Your task to perform on an android device: What's the latest video from GameSpot? Image 0: 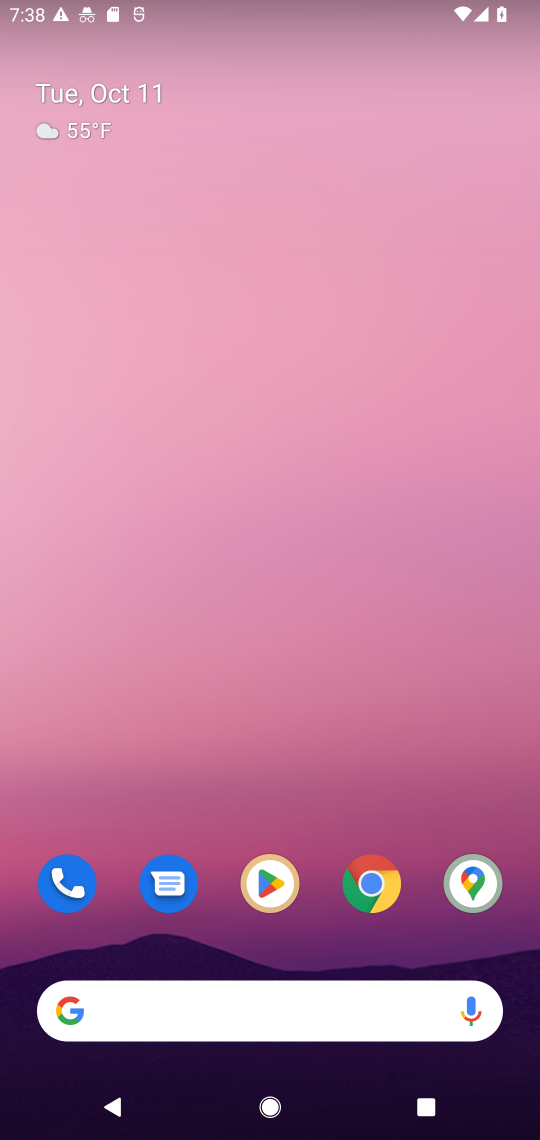
Step 0: drag from (323, 952) to (306, 50)
Your task to perform on an android device: What's the latest video from GameSpot? Image 1: 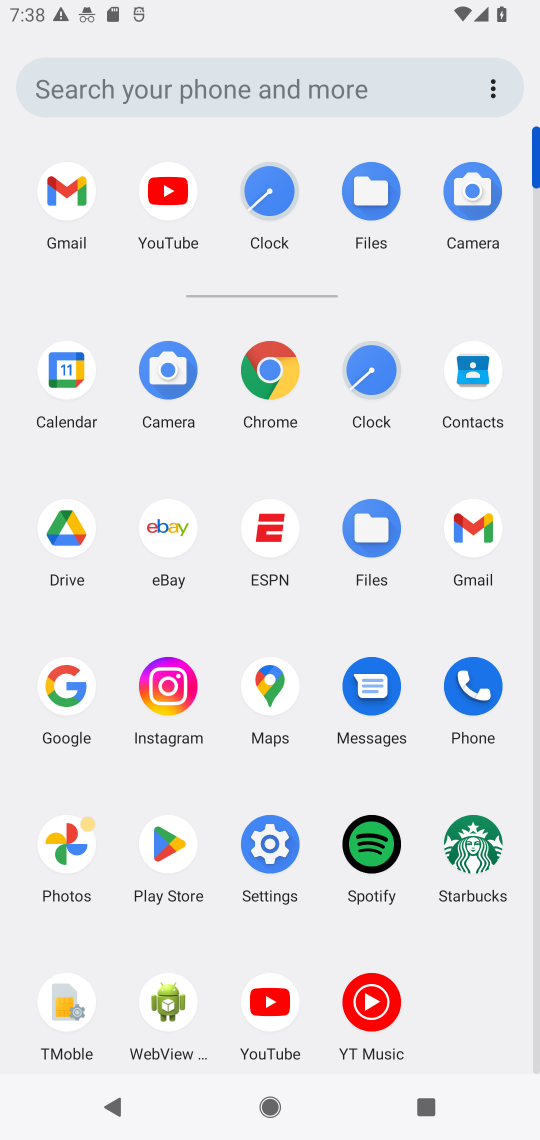
Step 1: click (276, 987)
Your task to perform on an android device: What's the latest video from GameSpot? Image 2: 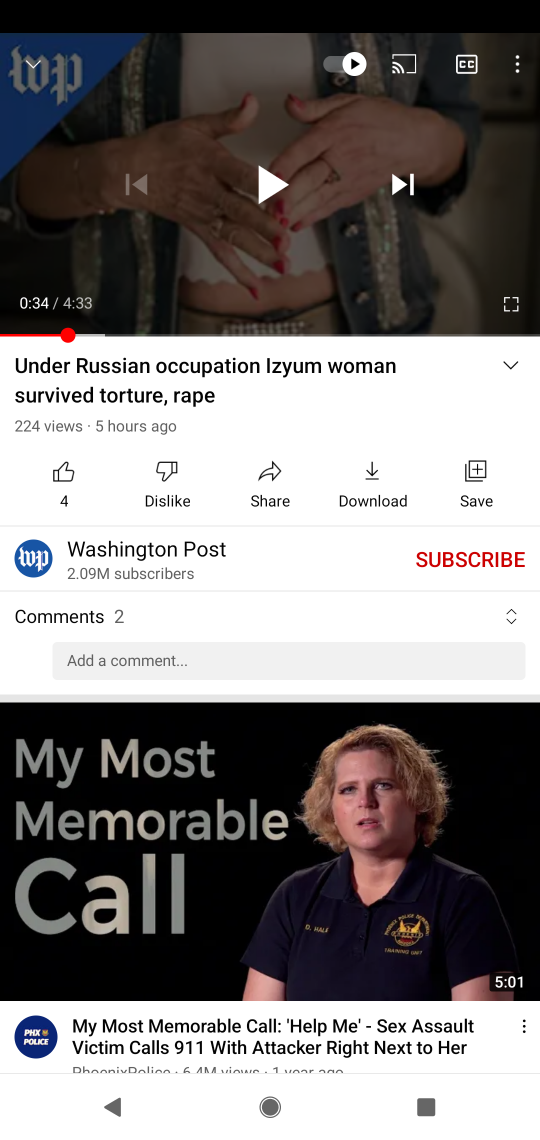
Step 2: drag from (331, 242) to (324, 867)
Your task to perform on an android device: What's the latest video from GameSpot? Image 3: 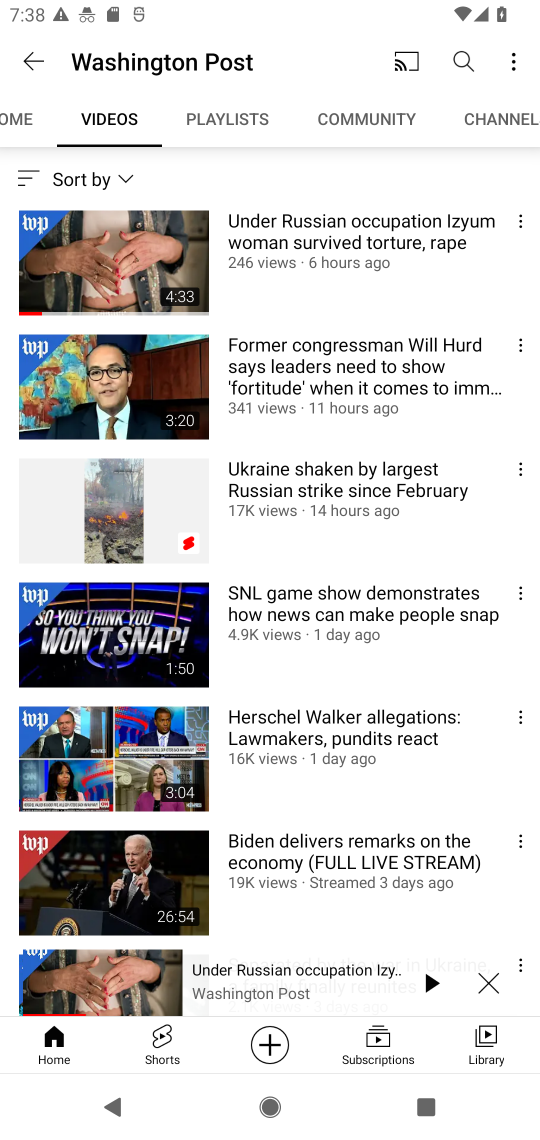
Step 3: press back button
Your task to perform on an android device: What's the latest video from GameSpot? Image 4: 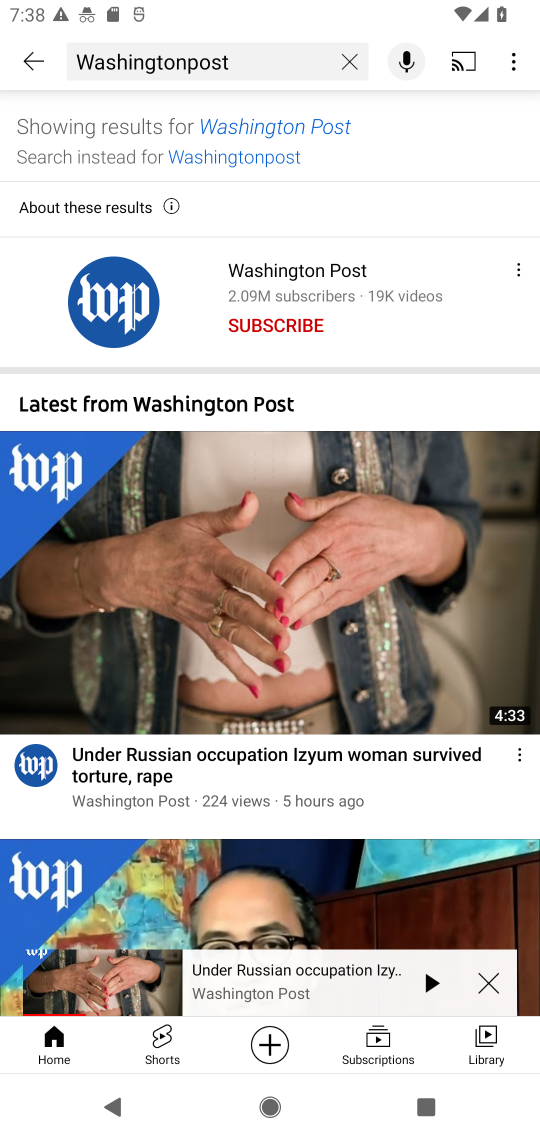
Step 4: click (351, 61)
Your task to perform on an android device: What's the latest video from GameSpot? Image 5: 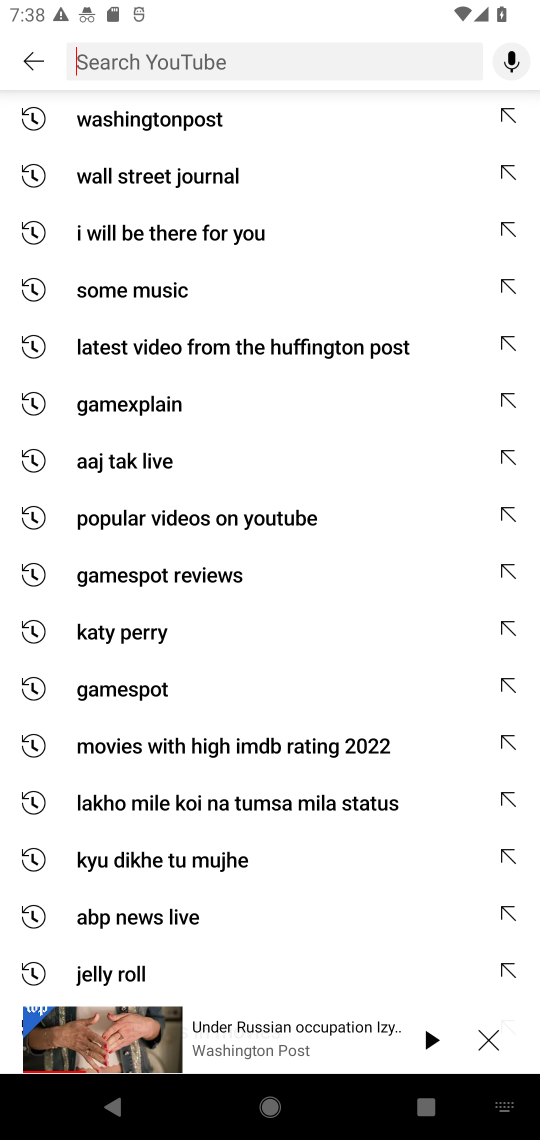
Step 5: type "GameSpot"
Your task to perform on an android device: What's the latest video from GameSpot? Image 6: 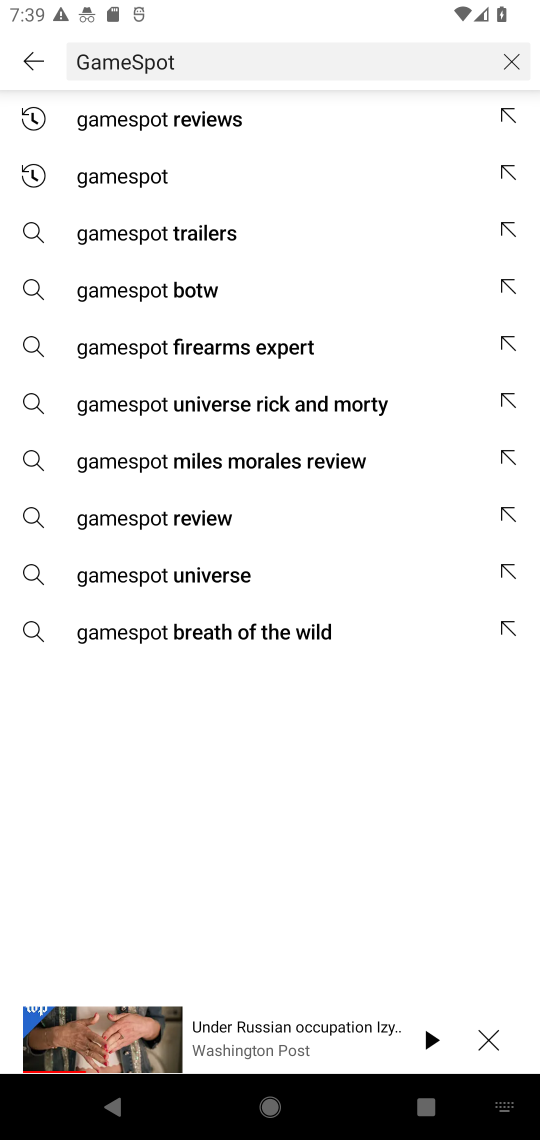
Step 6: press enter
Your task to perform on an android device: What's the latest video from GameSpot? Image 7: 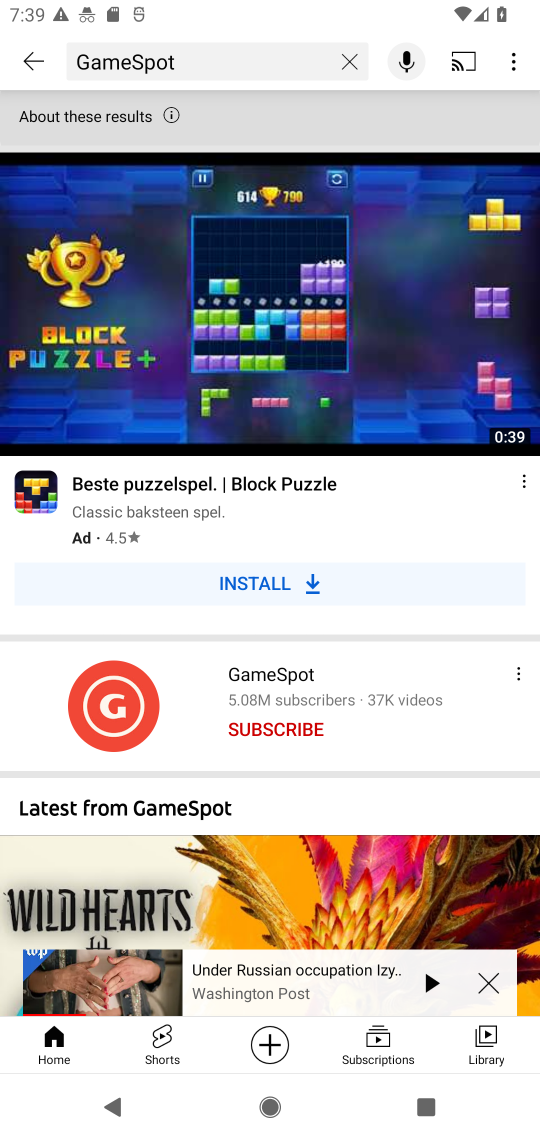
Step 7: click (237, 680)
Your task to perform on an android device: What's the latest video from GameSpot? Image 8: 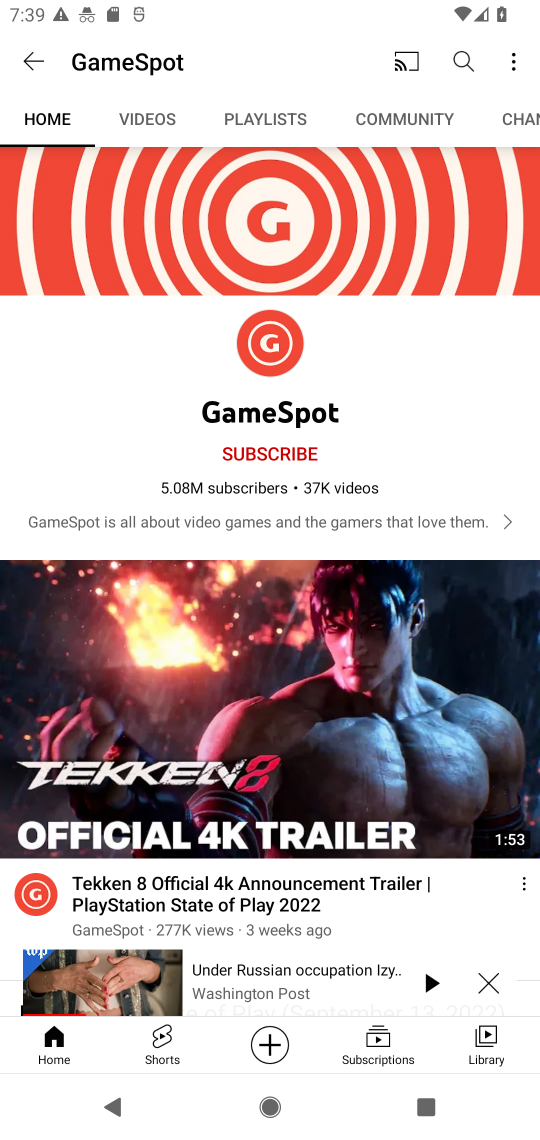
Step 8: click (128, 121)
Your task to perform on an android device: What's the latest video from GameSpot? Image 9: 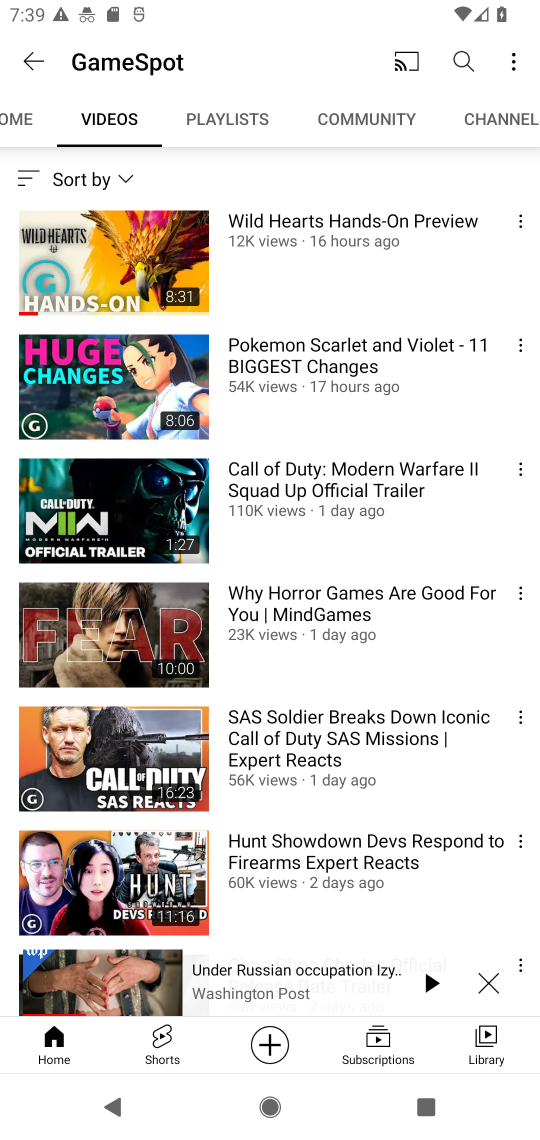
Step 9: click (136, 221)
Your task to perform on an android device: What's the latest video from GameSpot? Image 10: 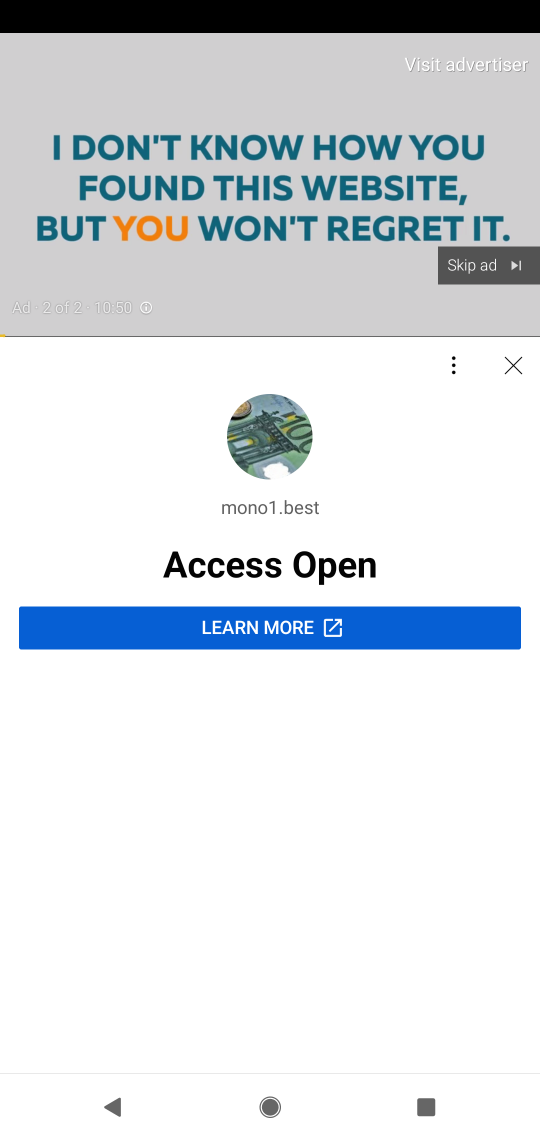
Step 10: click (517, 257)
Your task to perform on an android device: What's the latest video from GameSpot? Image 11: 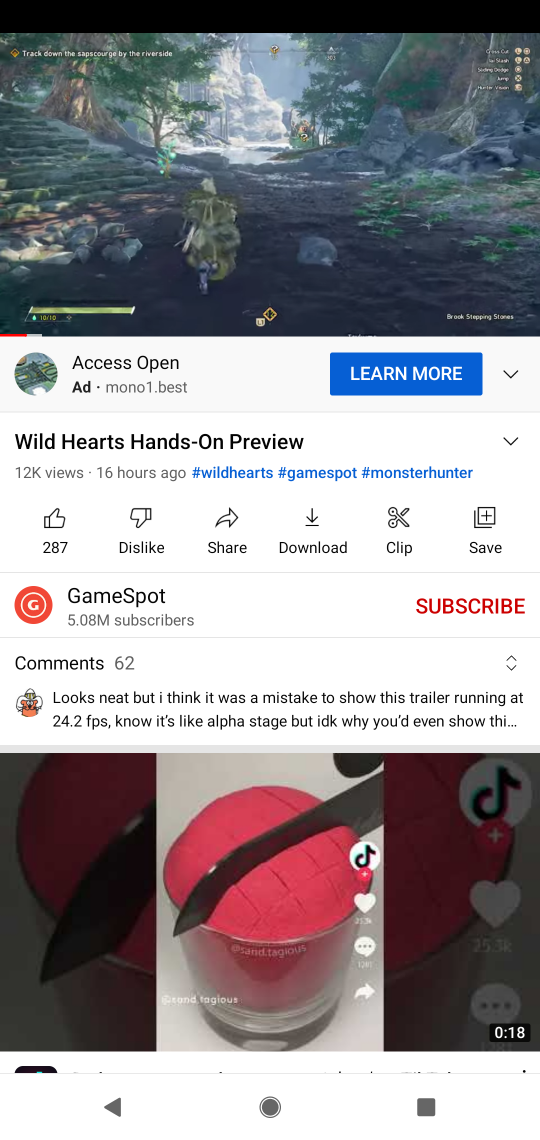
Step 11: task complete